Your task to perform on an android device: turn vacation reply on in the gmail app Image 0: 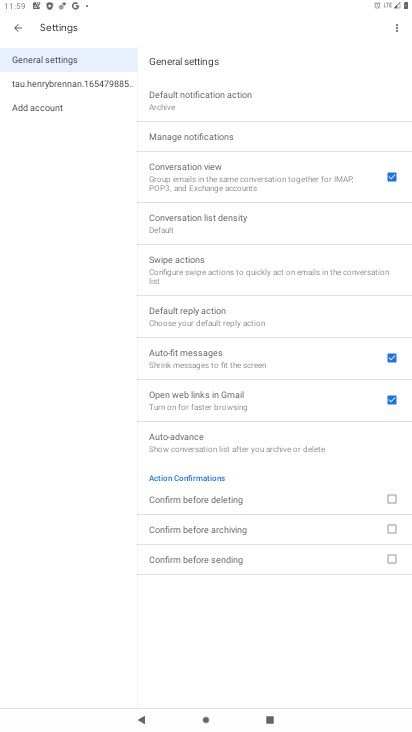
Step 0: press home button
Your task to perform on an android device: turn vacation reply on in the gmail app Image 1: 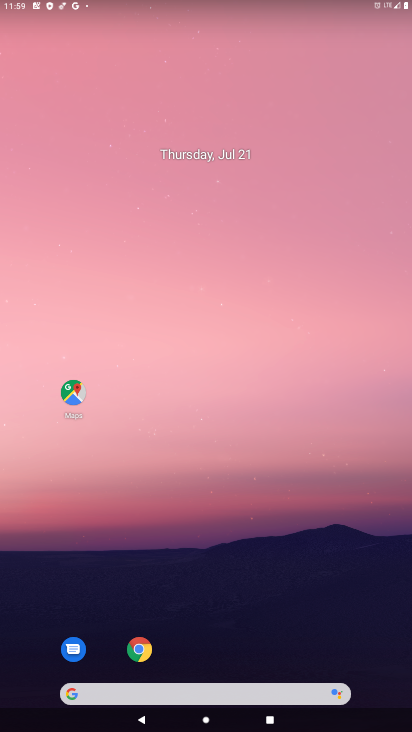
Step 1: drag from (266, 576) to (246, 69)
Your task to perform on an android device: turn vacation reply on in the gmail app Image 2: 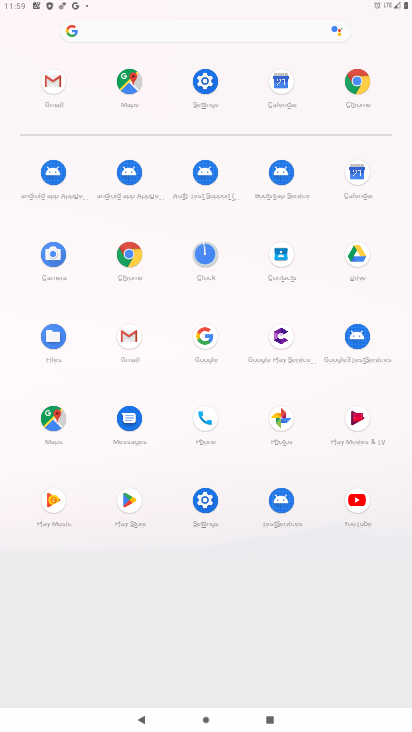
Step 2: click (52, 87)
Your task to perform on an android device: turn vacation reply on in the gmail app Image 3: 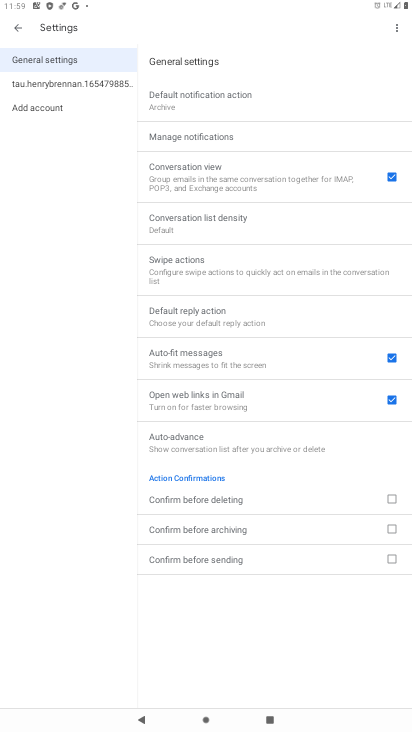
Step 3: click (67, 83)
Your task to perform on an android device: turn vacation reply on in the gmail app Image 4: 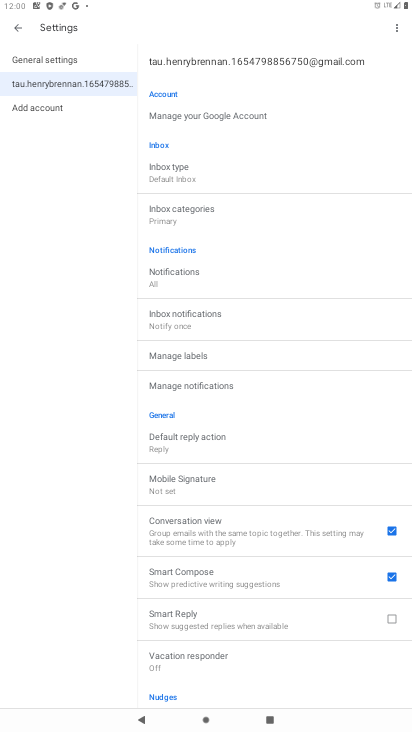
Step 4: click (168, 662)
Your task to perform on an android device: turn vacation reply on in the gmail app Image 5: 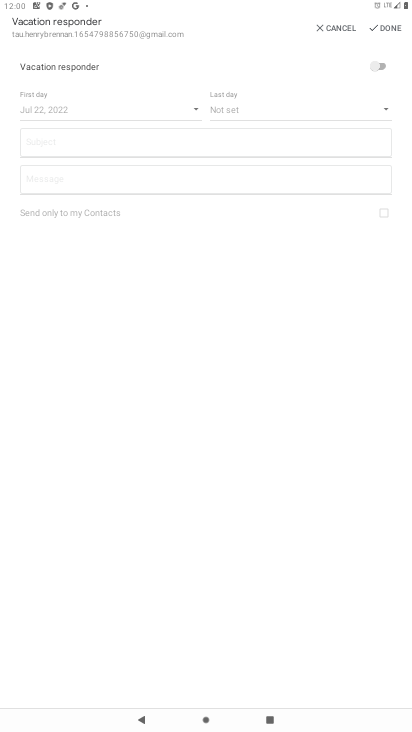
Step 5: click (364, 66)
Your task to perform on an android device: turn vacation reply on in the gmail app Image 6: 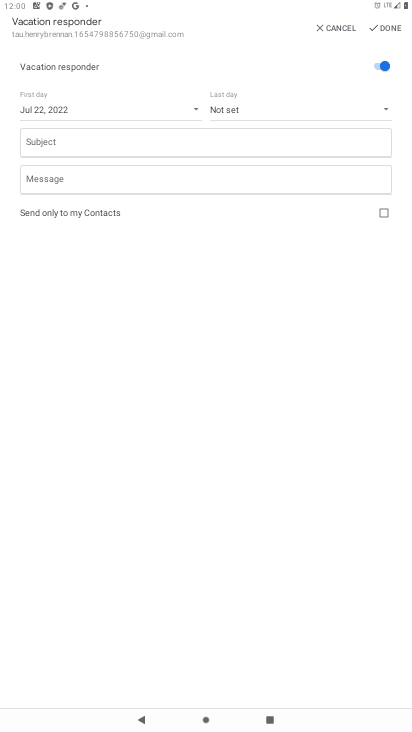
Step 6: task complete